Your task to perform on an android device: turn on location history Image 0: 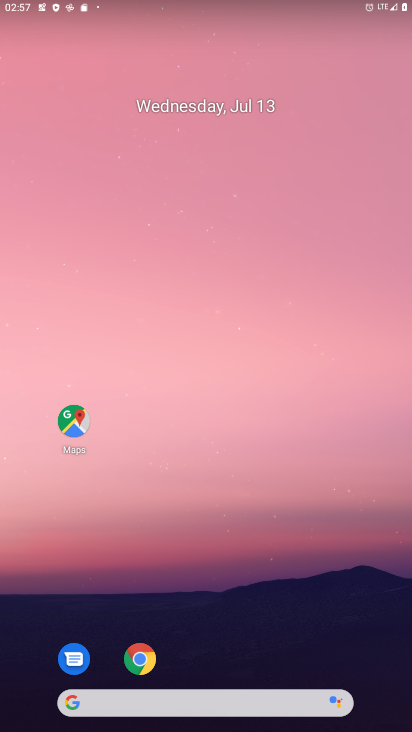
Step 0: click (197, 729)
Your task to perform on an android device: turn on location history Image 1: 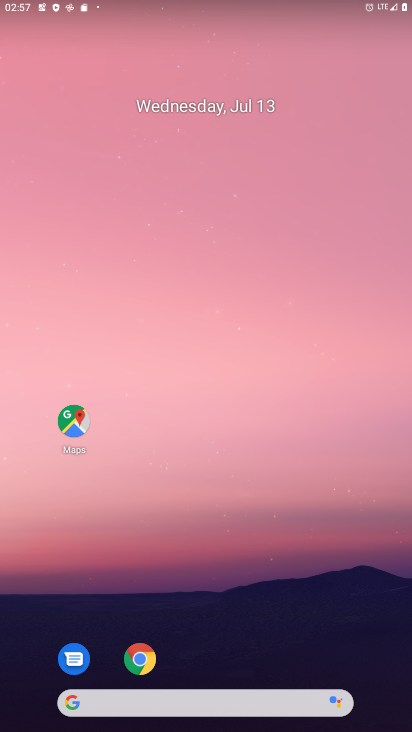
Step 1: drag from (193, 380) to (211, 175)
Your task to perform on an android device: turn on location history Image 2: 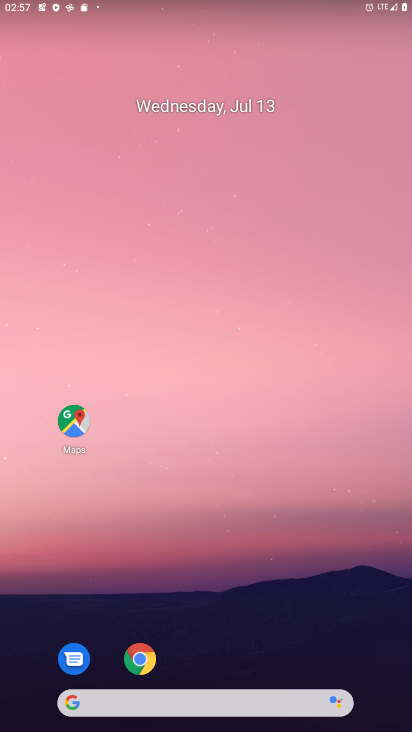
Step 2: drag from (227, 701) to (227, 132)
Your task to perform on an android device: turn on location history Image 3: 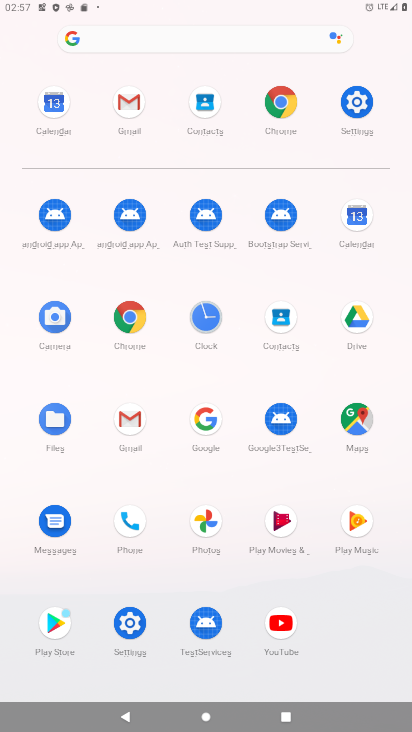
Step 3: click (356, 104)
Your task to perform on an android device: turn on location history Image 4: 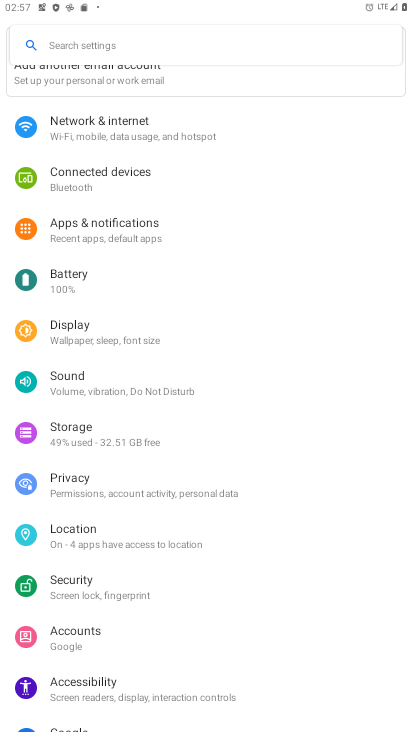
Step 4: click (90, 535)
Your task to perform on an android device: turn on location history Image 5: 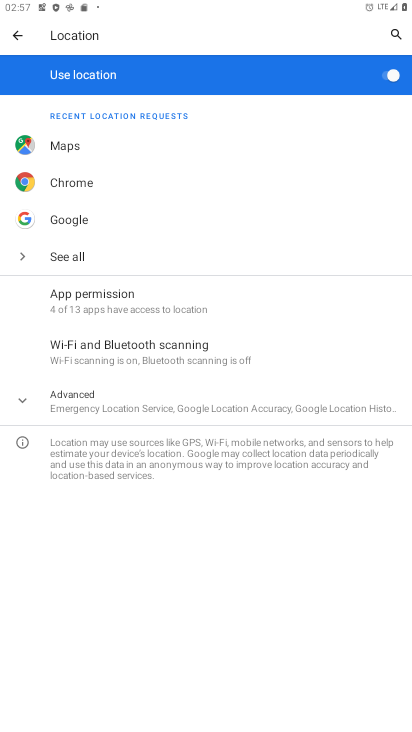
Step 5: click (75, 395)
Your task to perform on an android device: turn on location history Image 6: 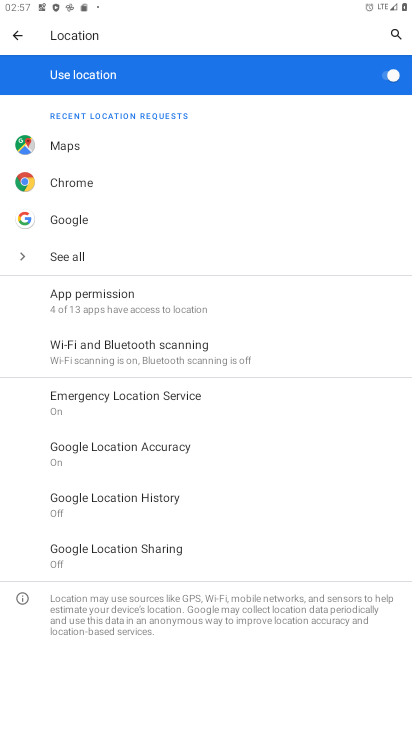
Step 6: click (77, 500)
Your task to perform on an android device: turn on location history Image 7: 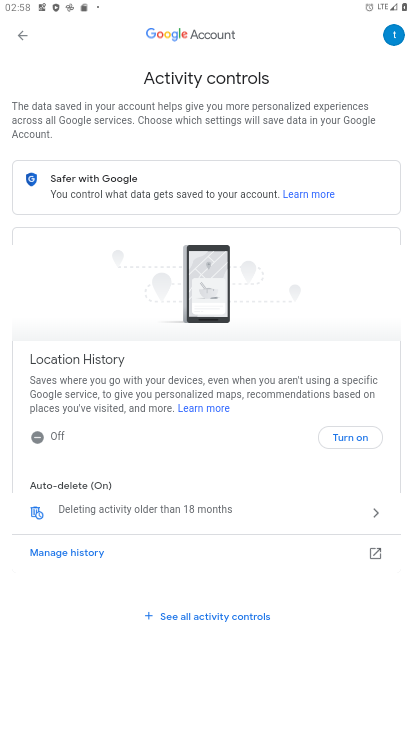
Step 7: click (348, 434)
Your task to perform on an android device: turn on location history Image 8: 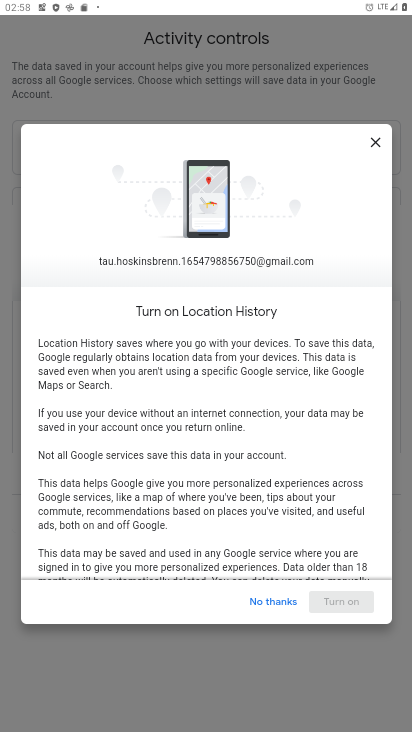
Step 8: click (141, 561)
Your task to perform on an android device: turn on location history Image 9: 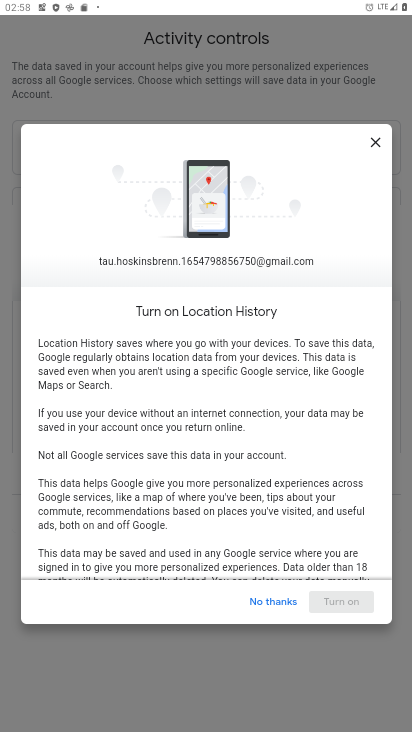
Step 9: drag from (146, 439) to (147, 289)
Your task to perform on an android device: turn on location history Image 10: 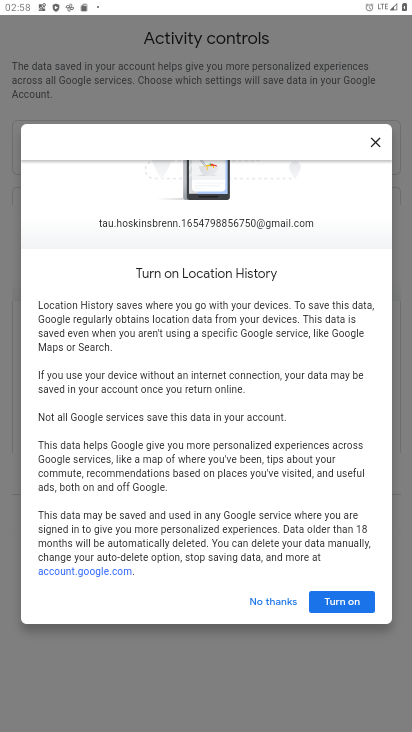
Step 10: click (356, 596)
Your task to perform on an android device: turn on location history Image 11: 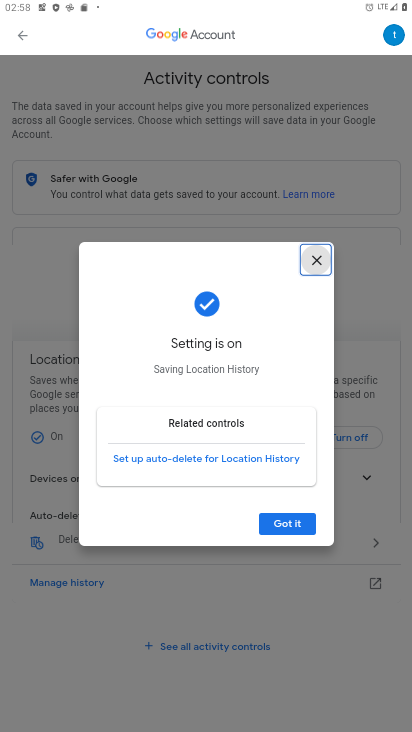
Step 11: click (298, 526)
Your task to perform on an android device: turn on location history Image 12: 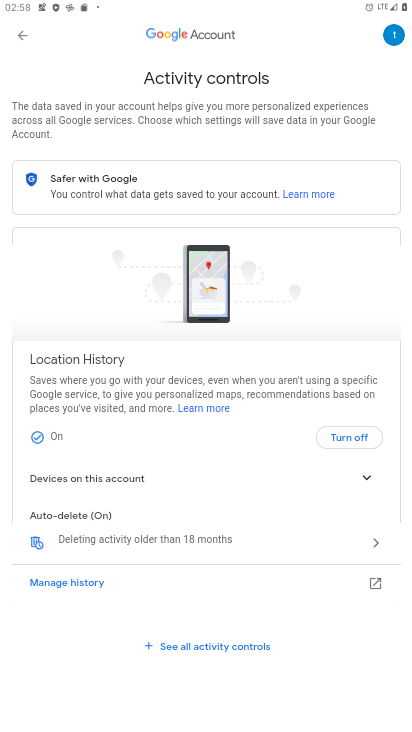
Step 12: task complete